Your task to perform on an android device: open app "Airtel Thanks" (install if not already installed) Image 0: 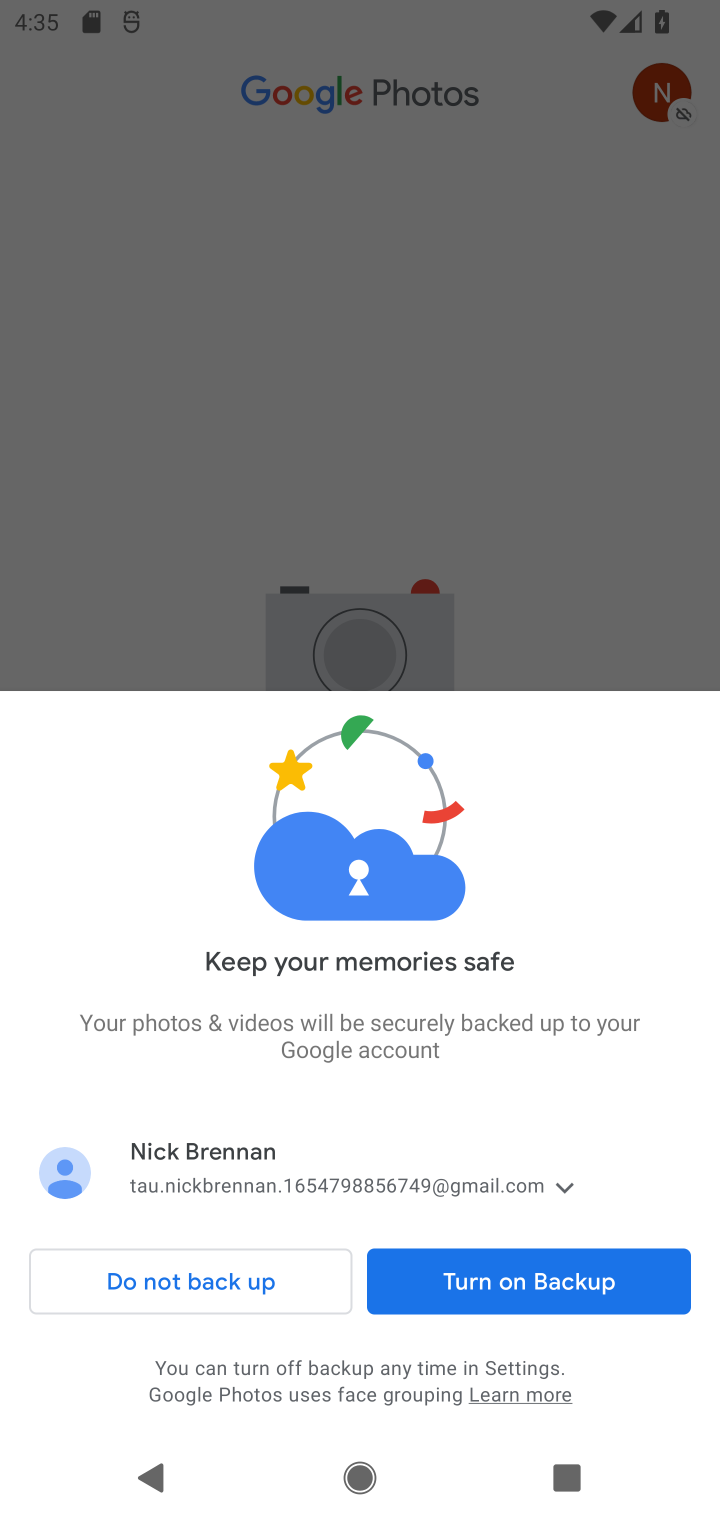
Step 0: press home button
Your task to perform on an android device: open app "Airtel Thanks" (install if not already installed) Image 1: 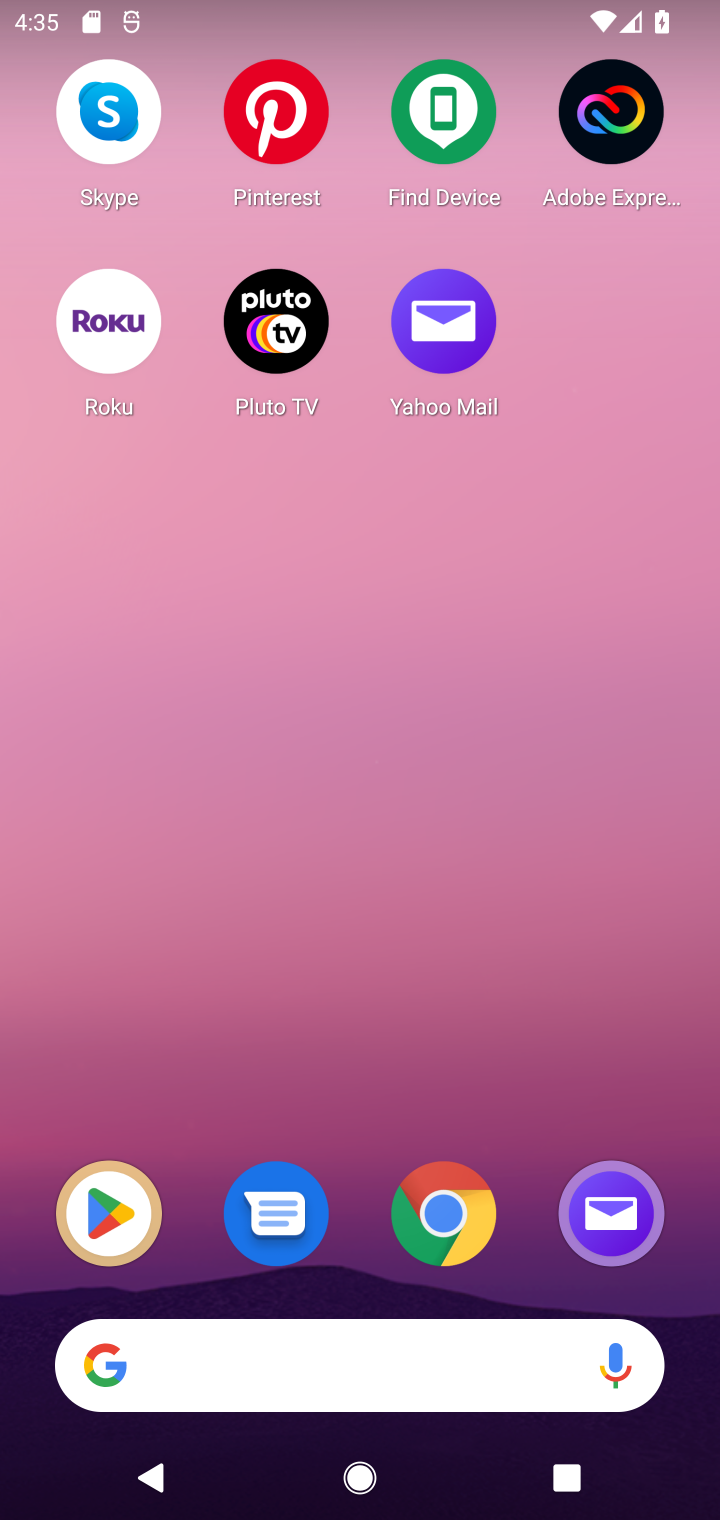
Step 1: drag from (522, 969) to (667, 87)
Your task to perform on an android device: open app "Airtel Thanks" (install if not already installed) Image 2: 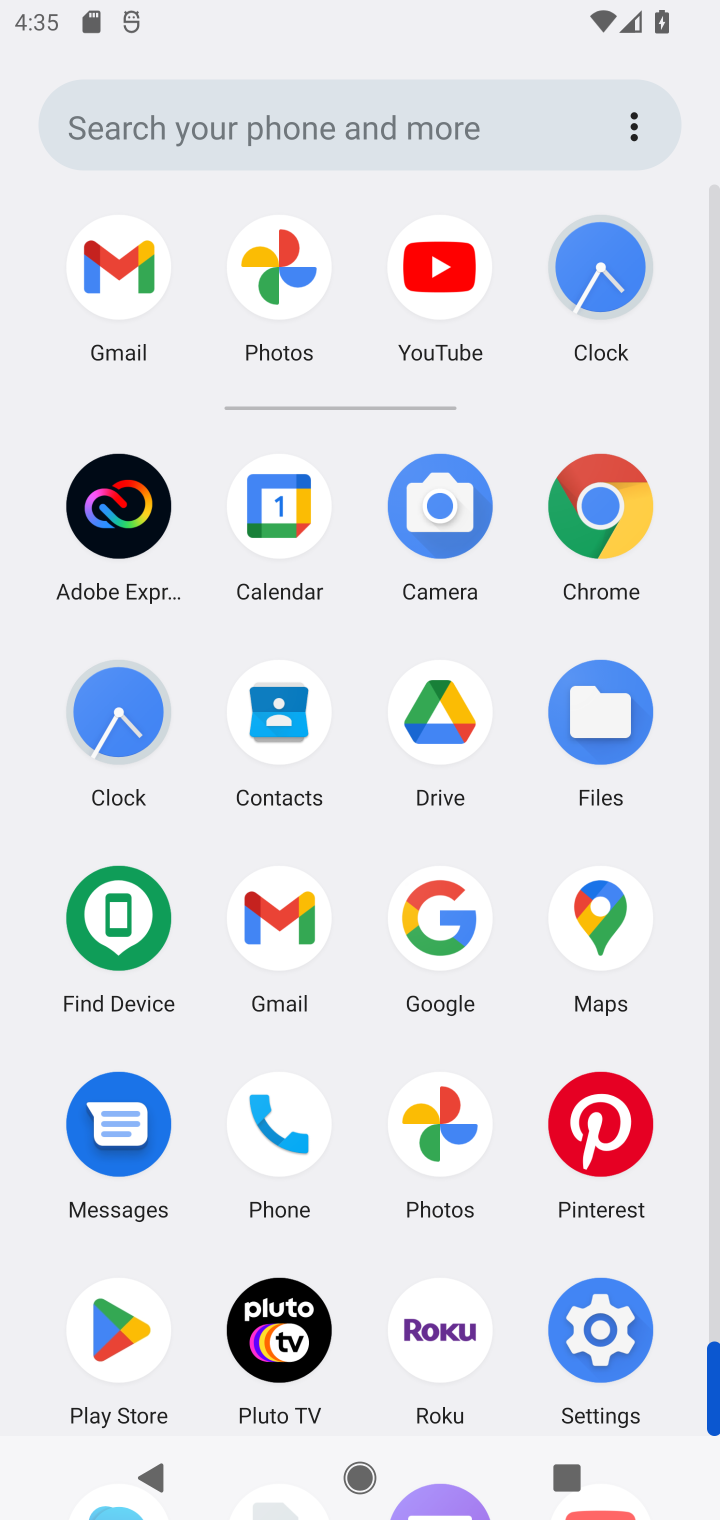
Step 2: click (98, 1313)
Your task to perform on an android device: open app "Airtel Thanks" (install if not already installed) Image 3: 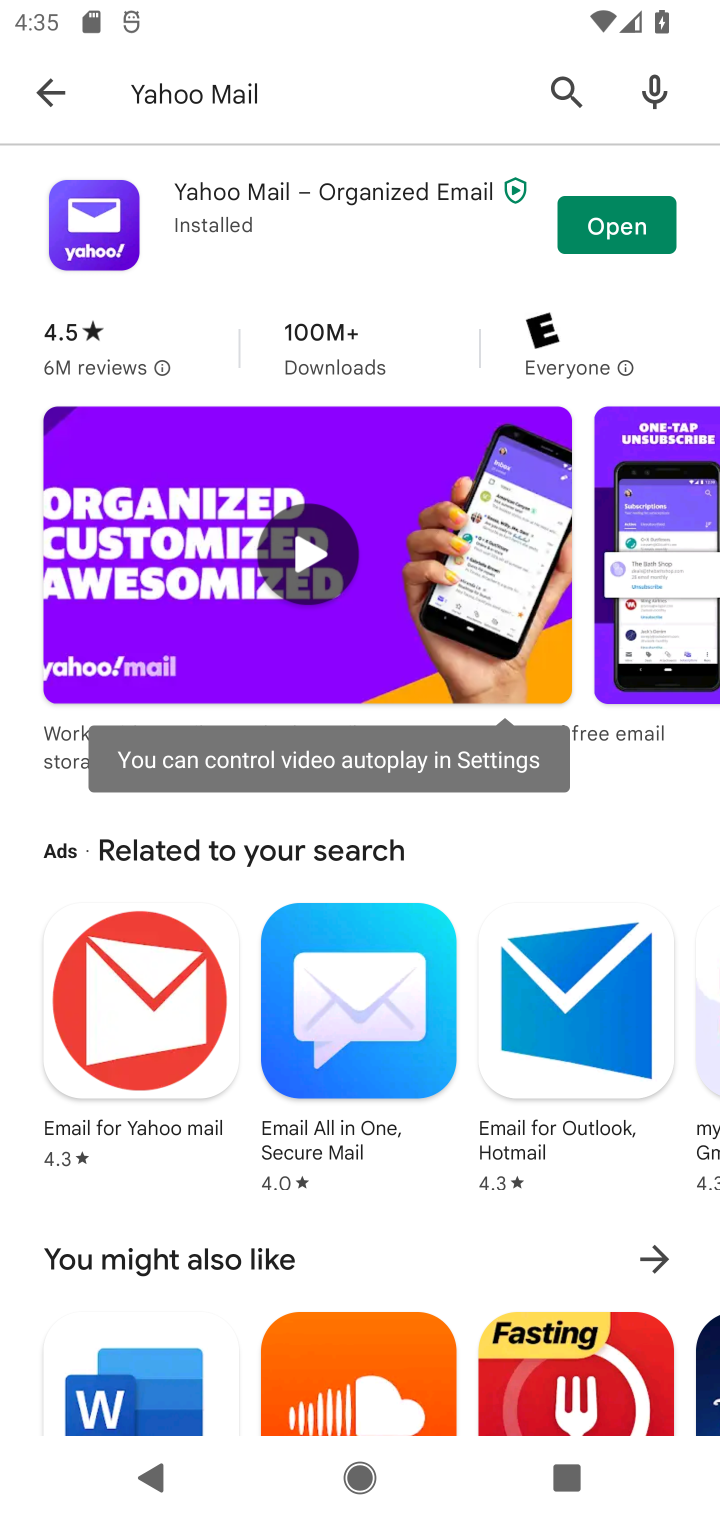
Step 3: click (387, 84)
Your task to perform on an android device: open app "Airtel Thanks" (install if not already installed) Image 4: 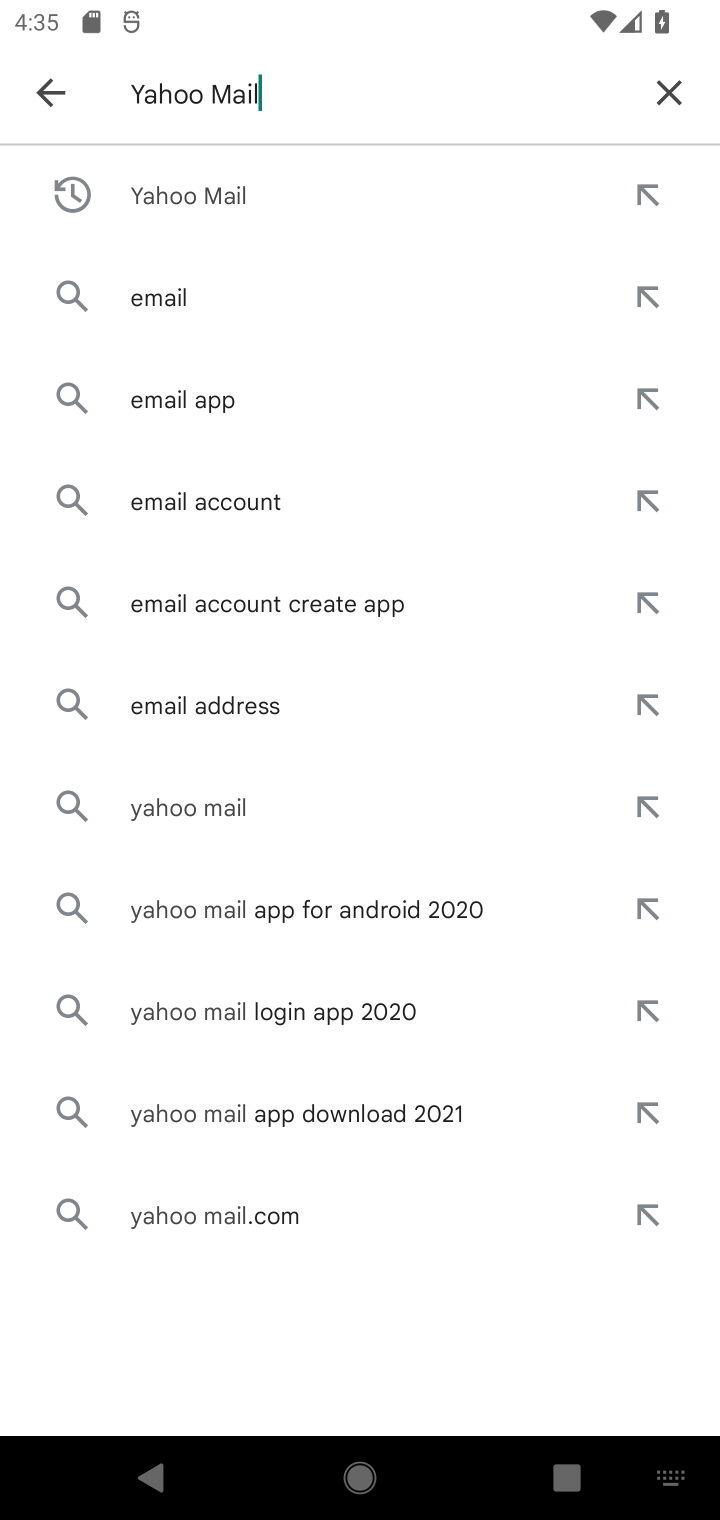
Step 4: click (663, 89)
Your task to perform on an android device: open app "Airtel Thanks" (install if not already installed) Image 5: 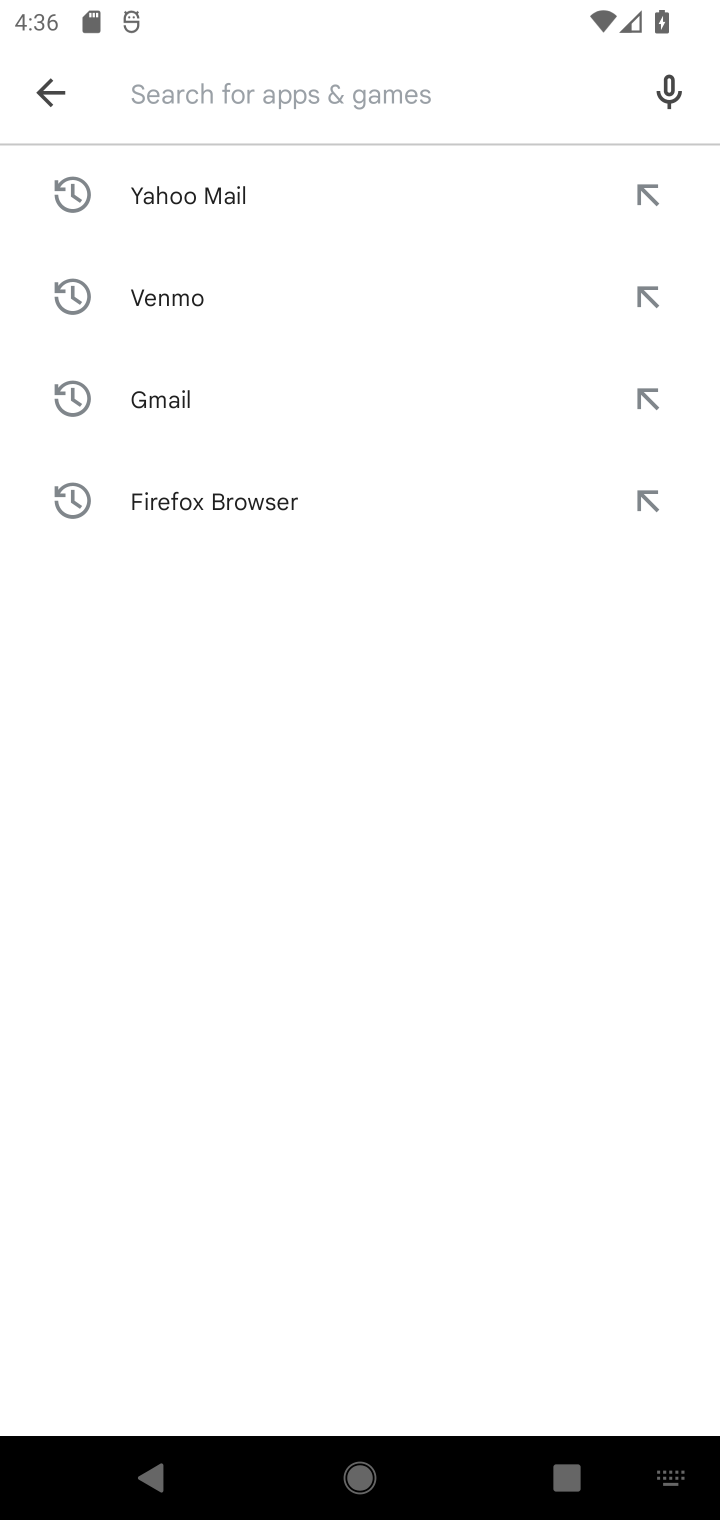
Step 5: type "Airtel Thanks"
Your task to perform on an android device: open app "Airtel Thanks" (install if not already installed) Image 6: 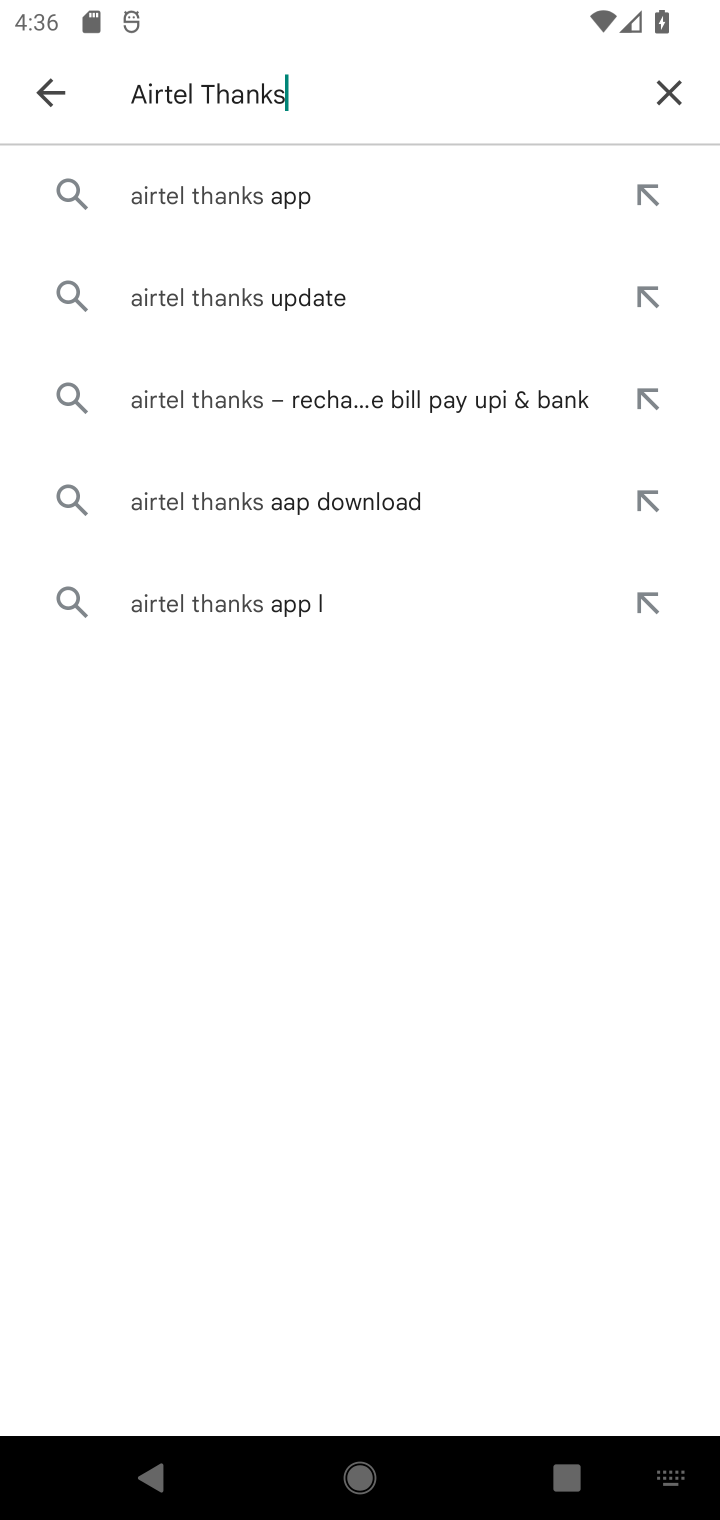
Step 6: press enter
Your task to perform on an android device: open app "Airtel Thanks" (install if not already installed) Image 7: 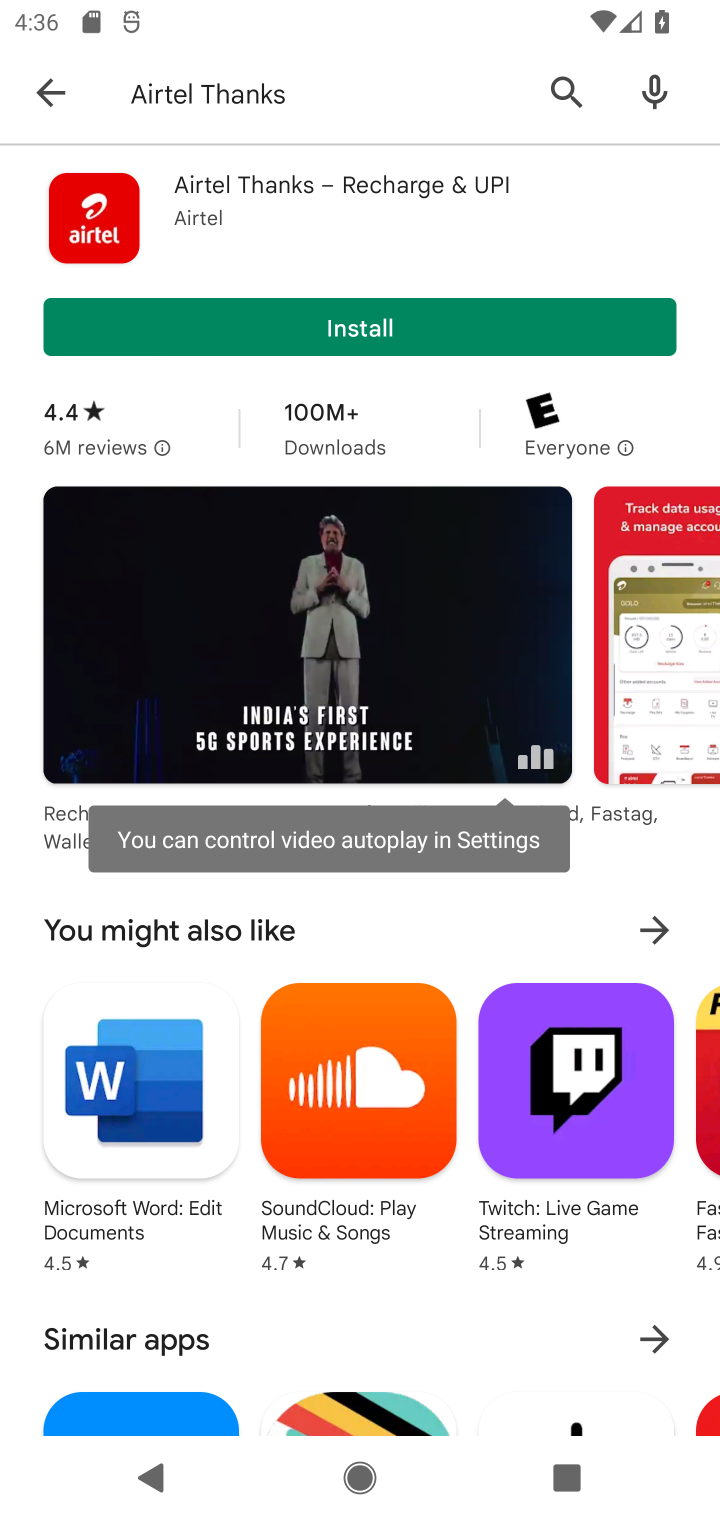
Step 7: click (584, 319)
Your task to perform on an android device: open app "Airtel Thanks" (install if not already installed) Image 8: 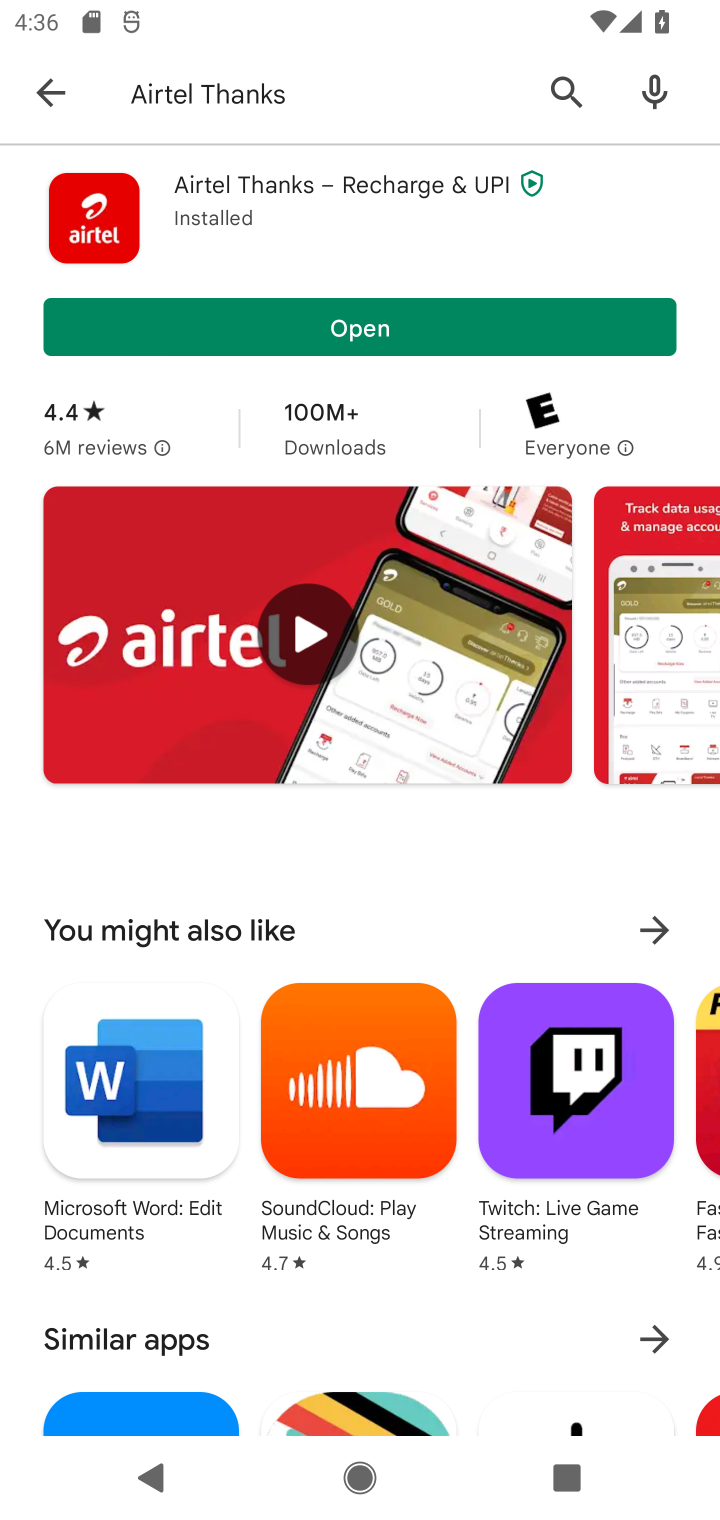
Step 8: click (588, 337)
Your task to perform on an android device: open app "Airtel Thanks" (install if not already installed) Image 9: 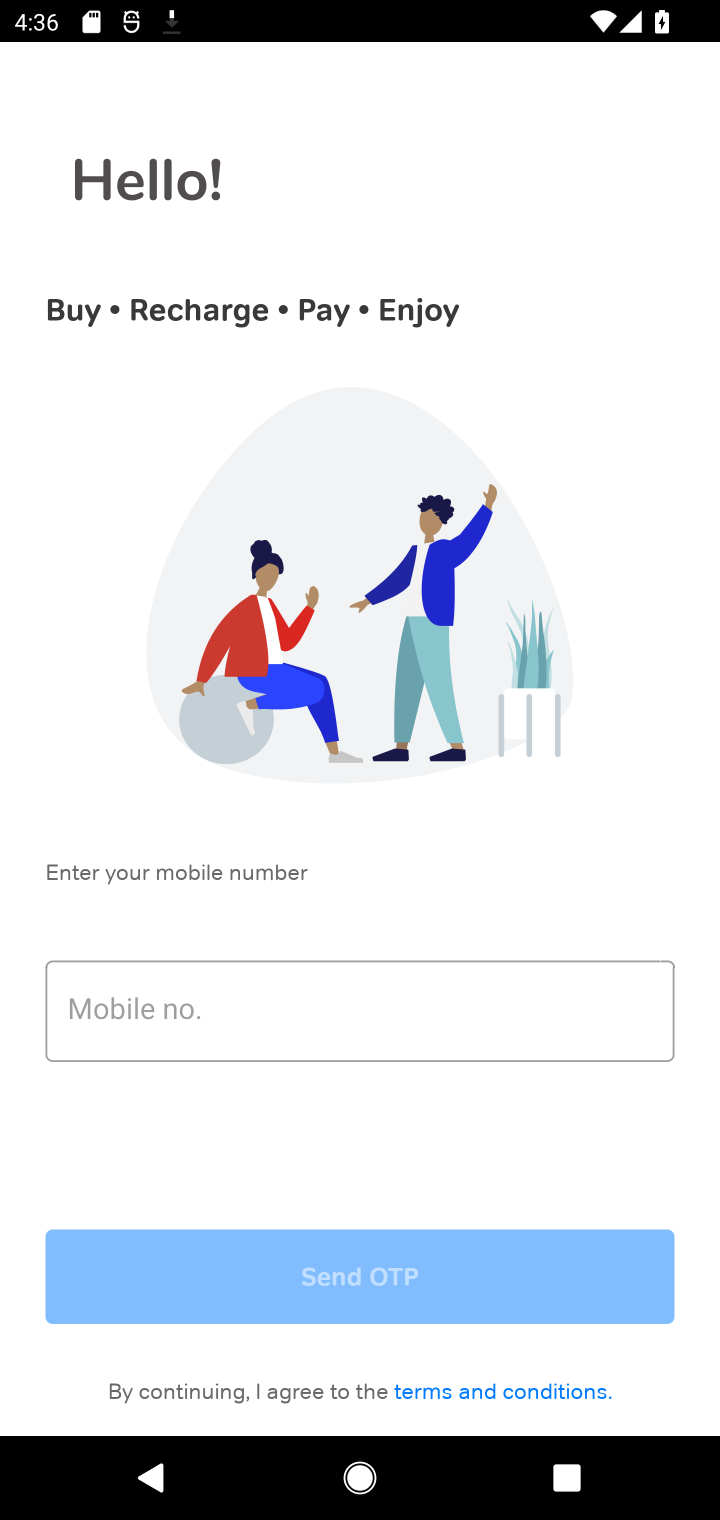
Step 9: task complete